Your task to perform on an android device: Go to Google Image 0: 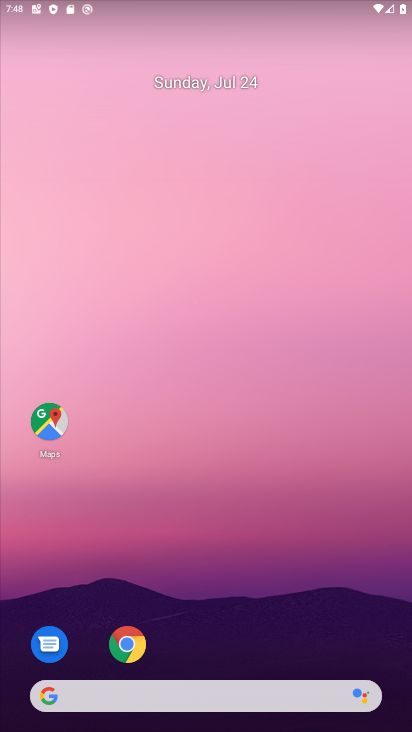
Step 0: drag from (305, 600) to (290, 70)
Your task to perform on an android device: Go to Google Image 1: 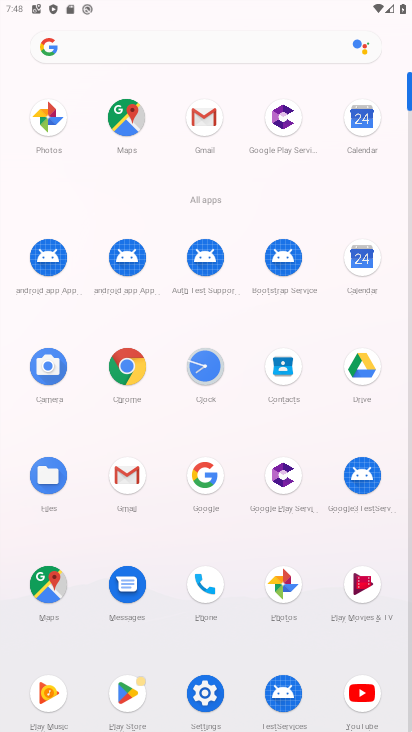
Step 1: click (193, 467)
Your task to perform on an android device: Go to Google Image 2: 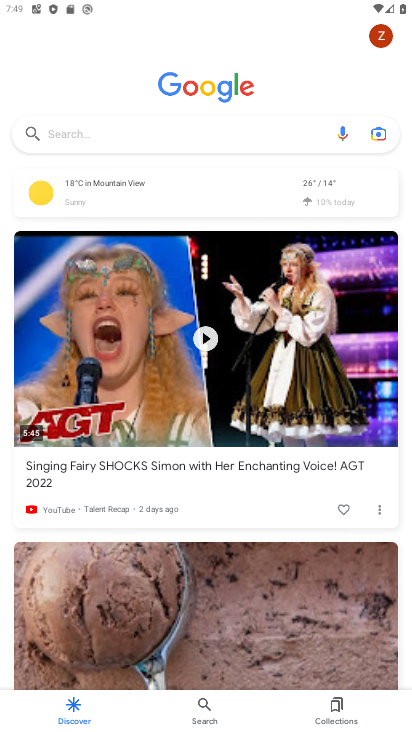
Step 2: task complete